Your task to perform on an android device: Open location settings Image 0: 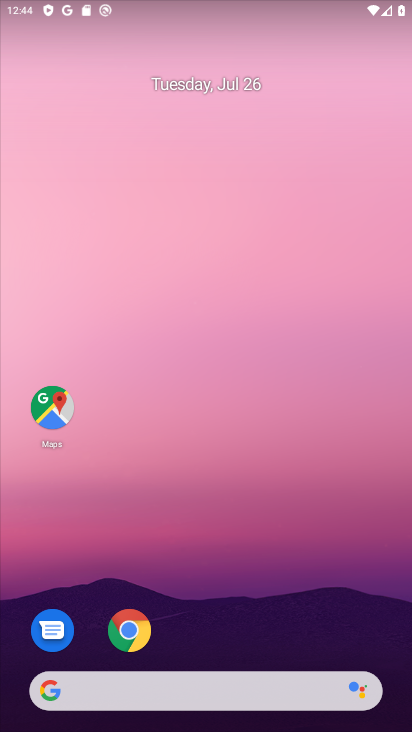
Step 0: drag from (203, 159) to (203, 69)
Your task to perform on an android device: Open location settings Image 1: 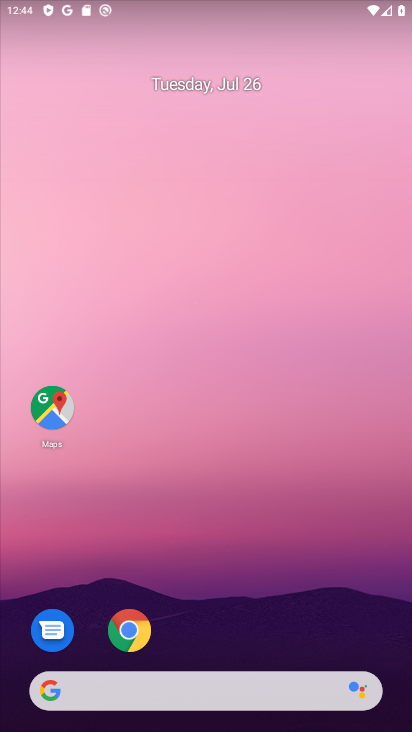
Step 1: drag from (222, 490) to (279, 98)
Your task to perform on an android device: Open location settings Image 2: 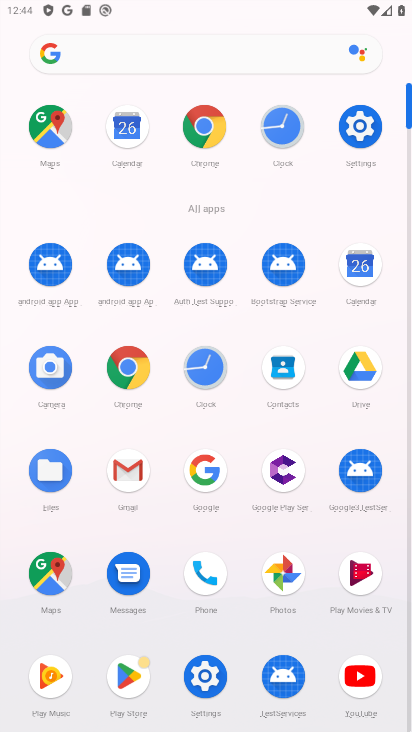
Step 2: click (356, 137)
Your task to perform on an android device: Open location settings Image 3: 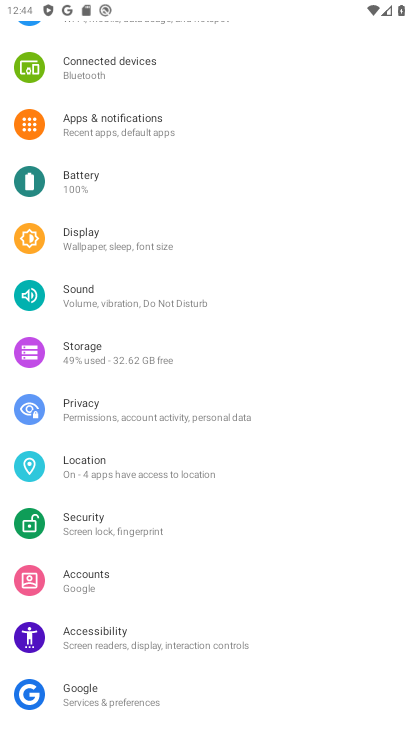
Step 3: click (80, 465)
Your task to perform on an android device: Open location settings Image 4: 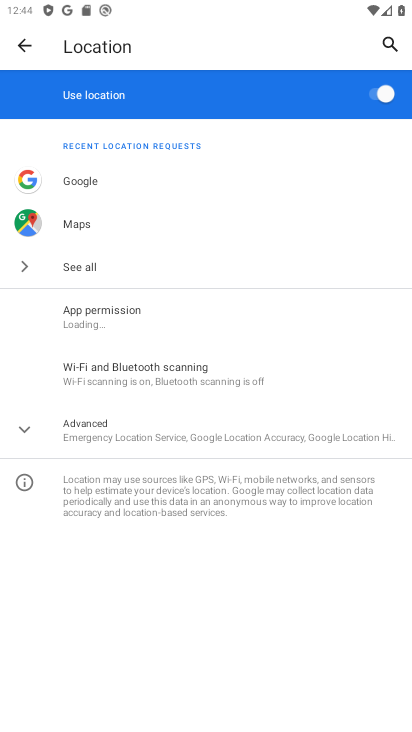
Step 4: task complete